Your task to perform on an android device: snooze an email in the gmail app Image 0: 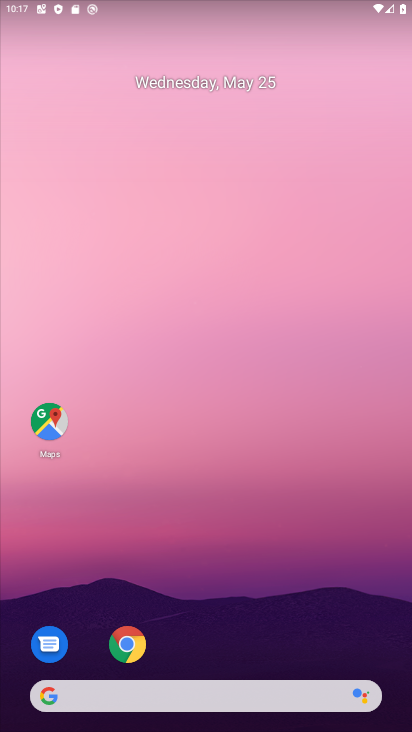
Step 0: drag from (234, 570) to (182, 77)
Your task to perform on an android device: snooze an email in the gmail app Image 1: 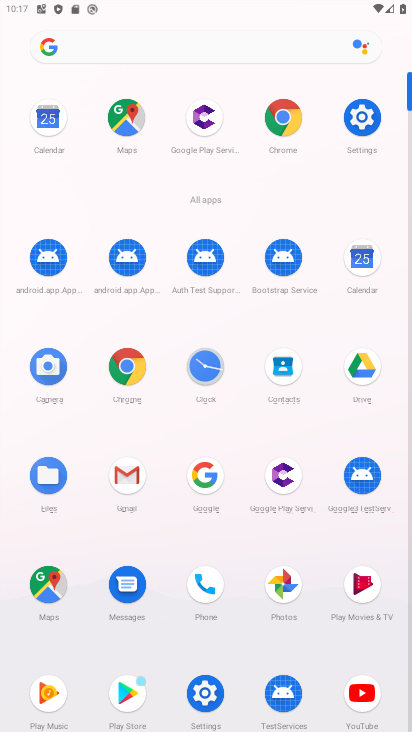
Step 1: click (130, 480)
Your task to perform on an android device: snooze an email in the gmail app Image 2: 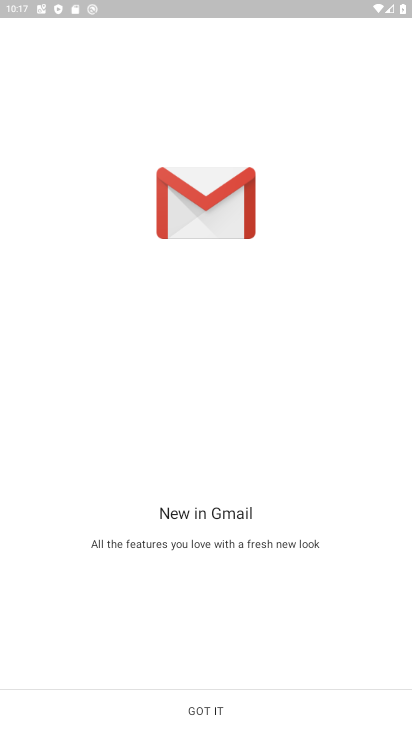
Step 2: click (212, 707)
Your task to perform on an android device: snooze an email in the gmail app Image 3: 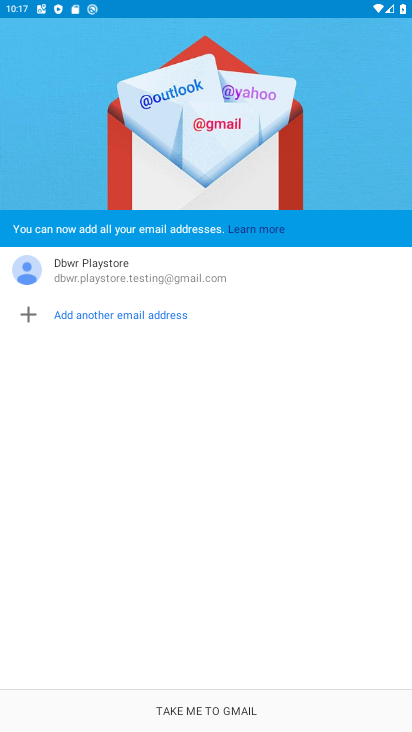
Step 3: click (214, 703)
Your task to perform on an android device: snooze an email in the gmail app Image 4: 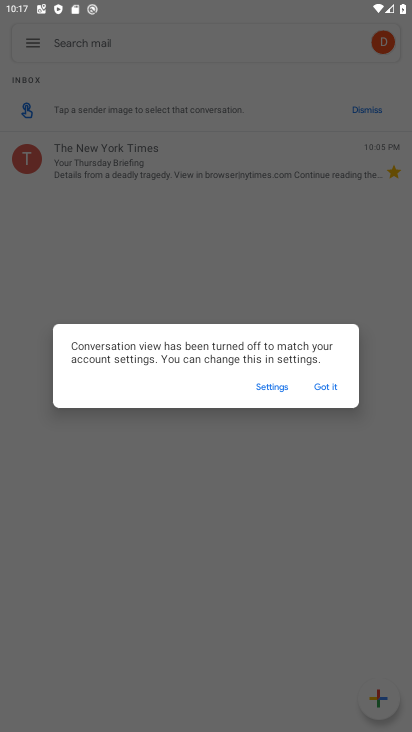
Step 4: click (313, 380)
Your task to perform on an android device: snooze an email in the gmail app Image 5: 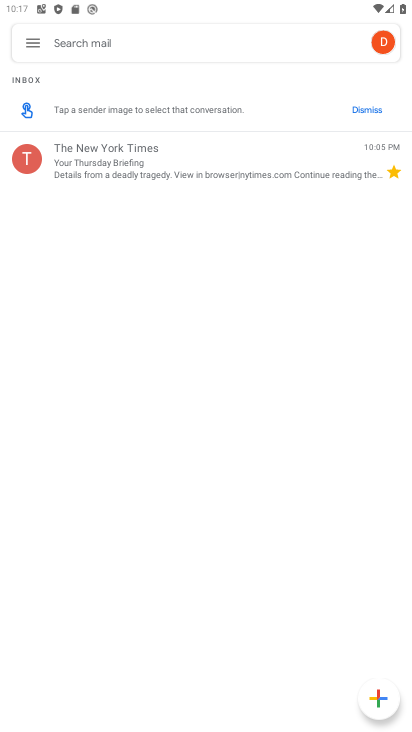
Step 5: click (169, 166)
Your task to perform on an android device: snooze an email in the gmail app Image 6: 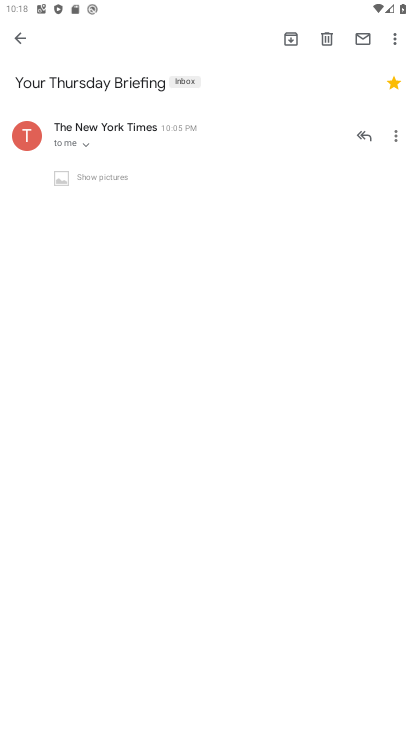
Step 6: click (392, 35)
Your task to perform on an android device: snooze an email in the gmail app Image 7: 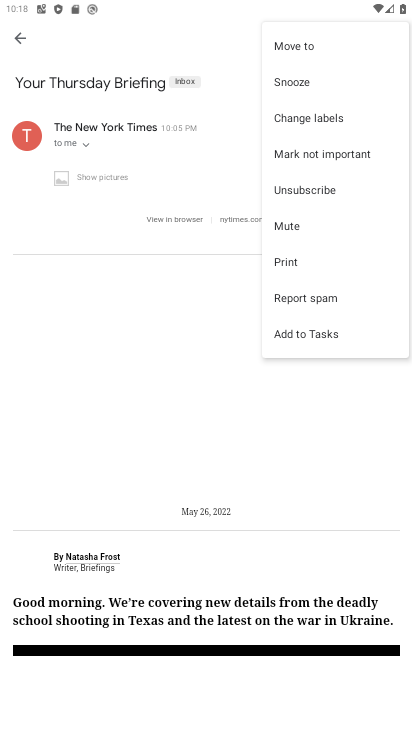
Step 7: click (296, 75)
Your task to perform on an android device: snooze an email in the gmail app Image 8: 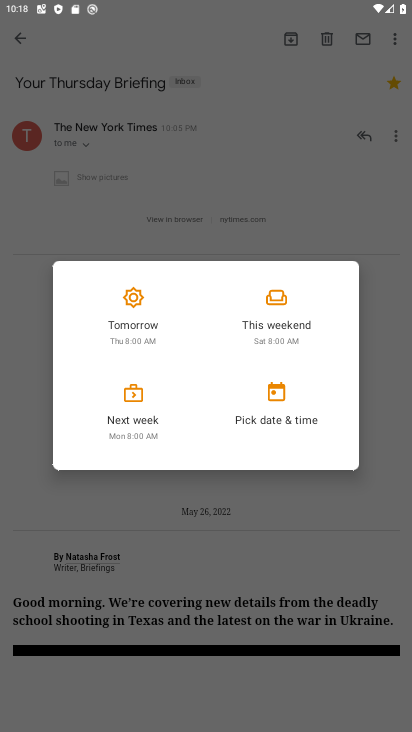
Step 8: click (143, 313)
Your task to perform on an android device: snooze an email in the gmail app Image 9: 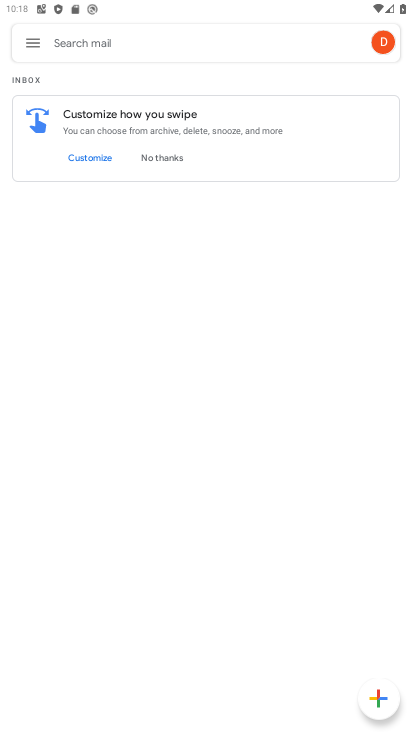
Step 9: task complete